Your task to perform on an android device: change the clock style Image 0: 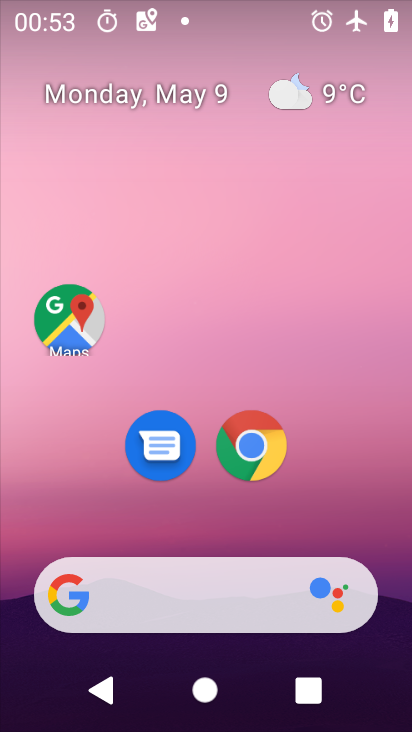
Step 0: drag from (345, 549) to (395, 0)
Your task to perform on an android device: change the clock style Image 1: 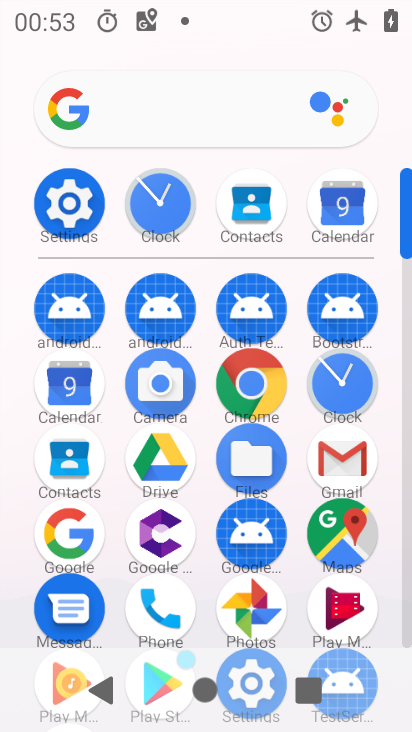
Step 1: click (157, 199)
Your task to perform on an android device: change the clock style Image 2: 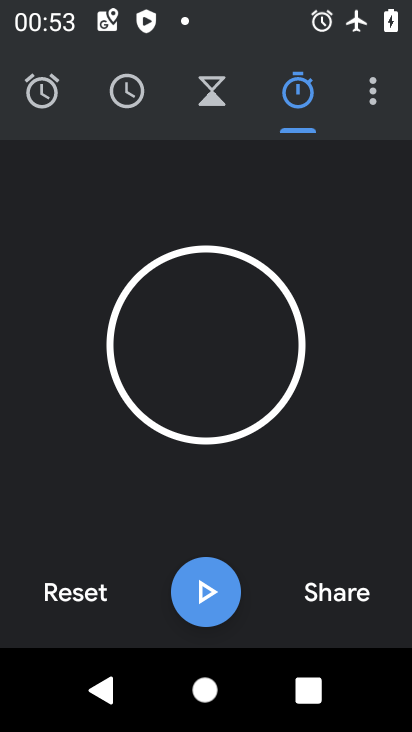
Step 2: click (380, 101)
Your task to perform on an android device: change the clock style Image 3: 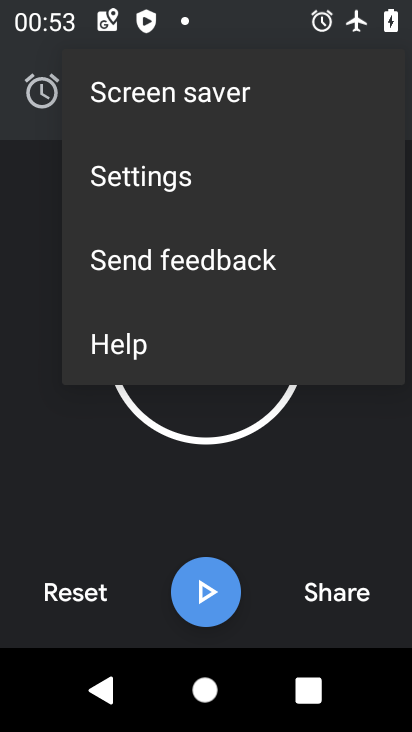
Step 3: click (143, 191)
Your task to perform on an android device: change the clock style Image 4: 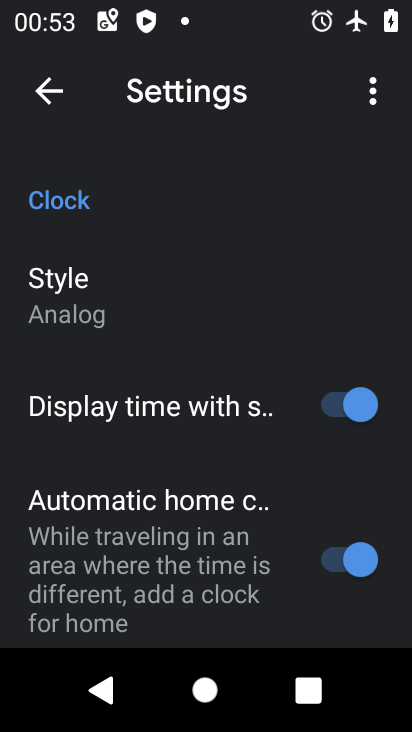
Step 4: click (104, 312)
Your task to perform on an android device: change the clock style Image 5: 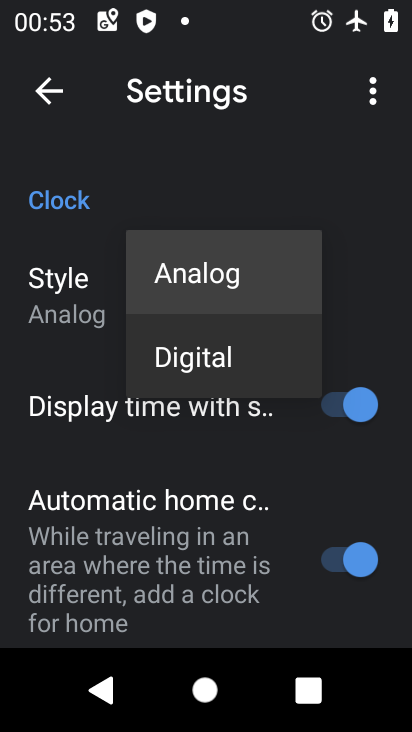
Step 5: click (196, 365)
Your task to perform on an android device: change the clock style Image 6: 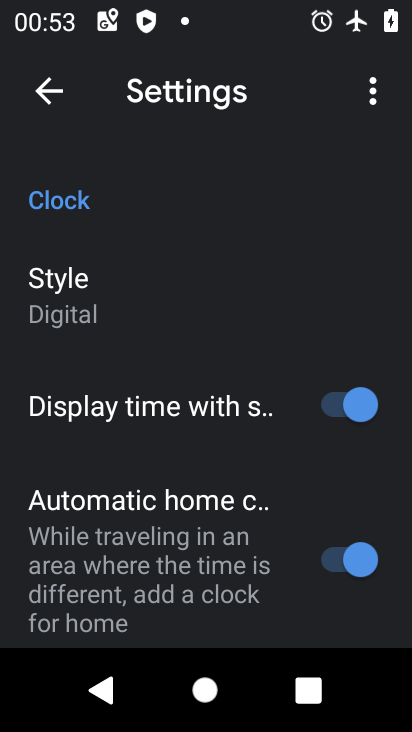
Step 6: task complete